Your task to perform on an android device: Go to location settings Image 0: 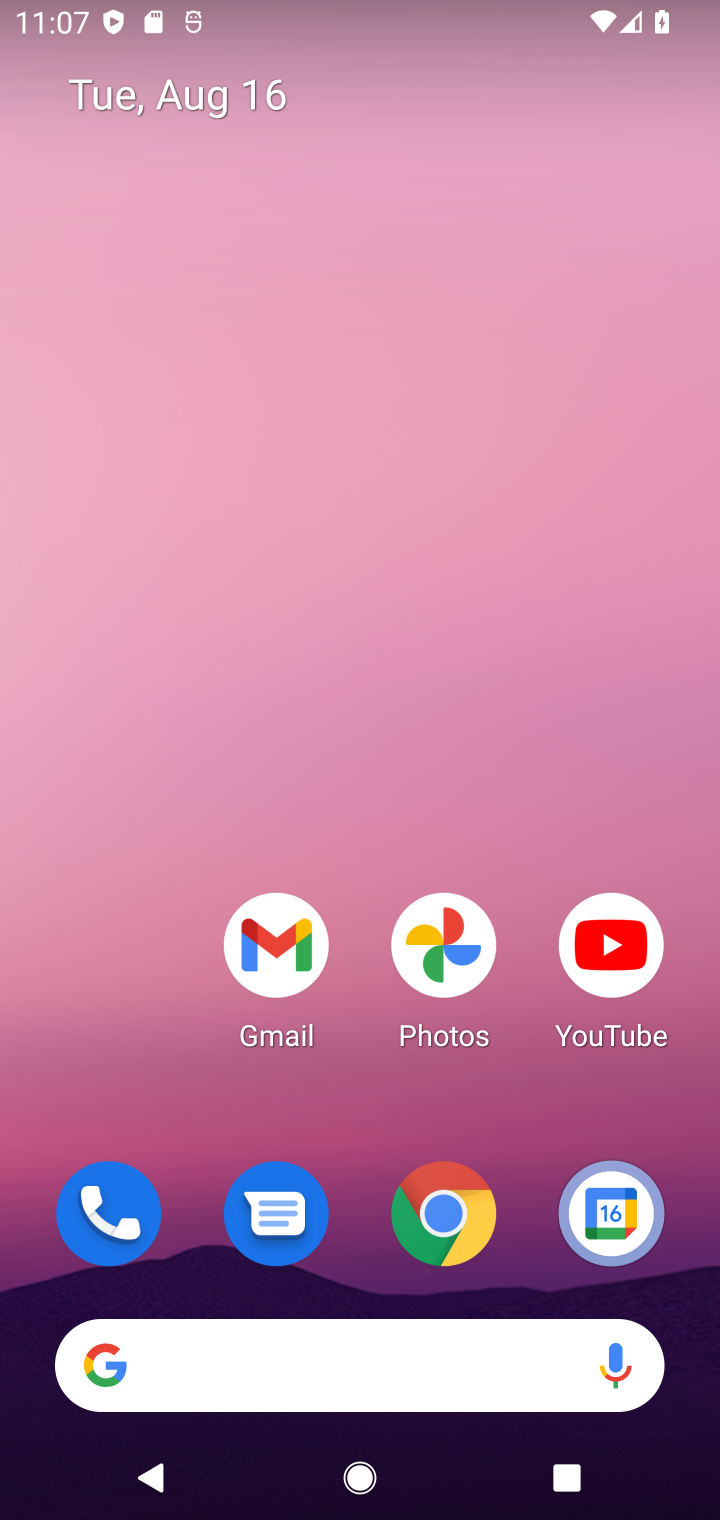
Step 0: click (273, 175)
Your task to perform on an android device: Go to location settings Image 1: 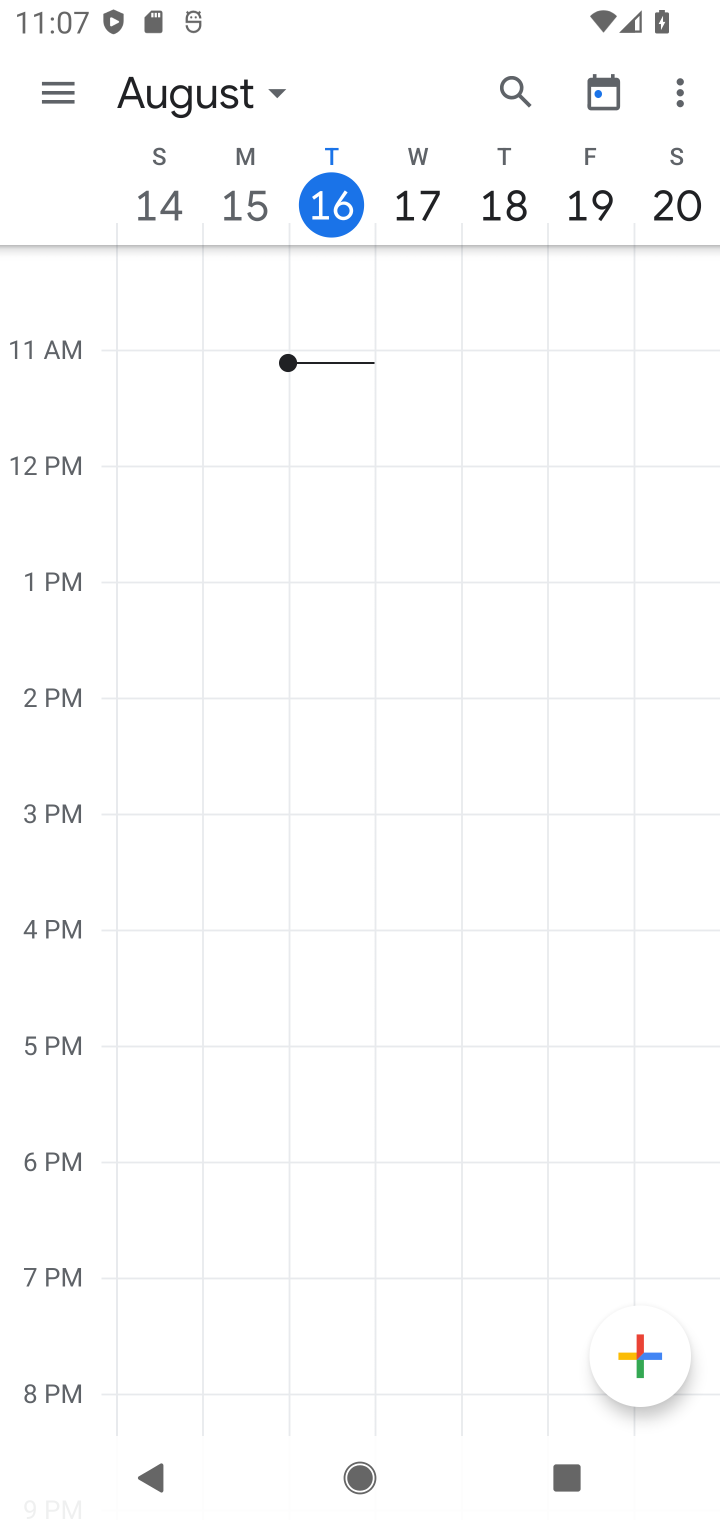
Step 1: press home button
Your task to perform on an android device: Go to location settings Image 2: 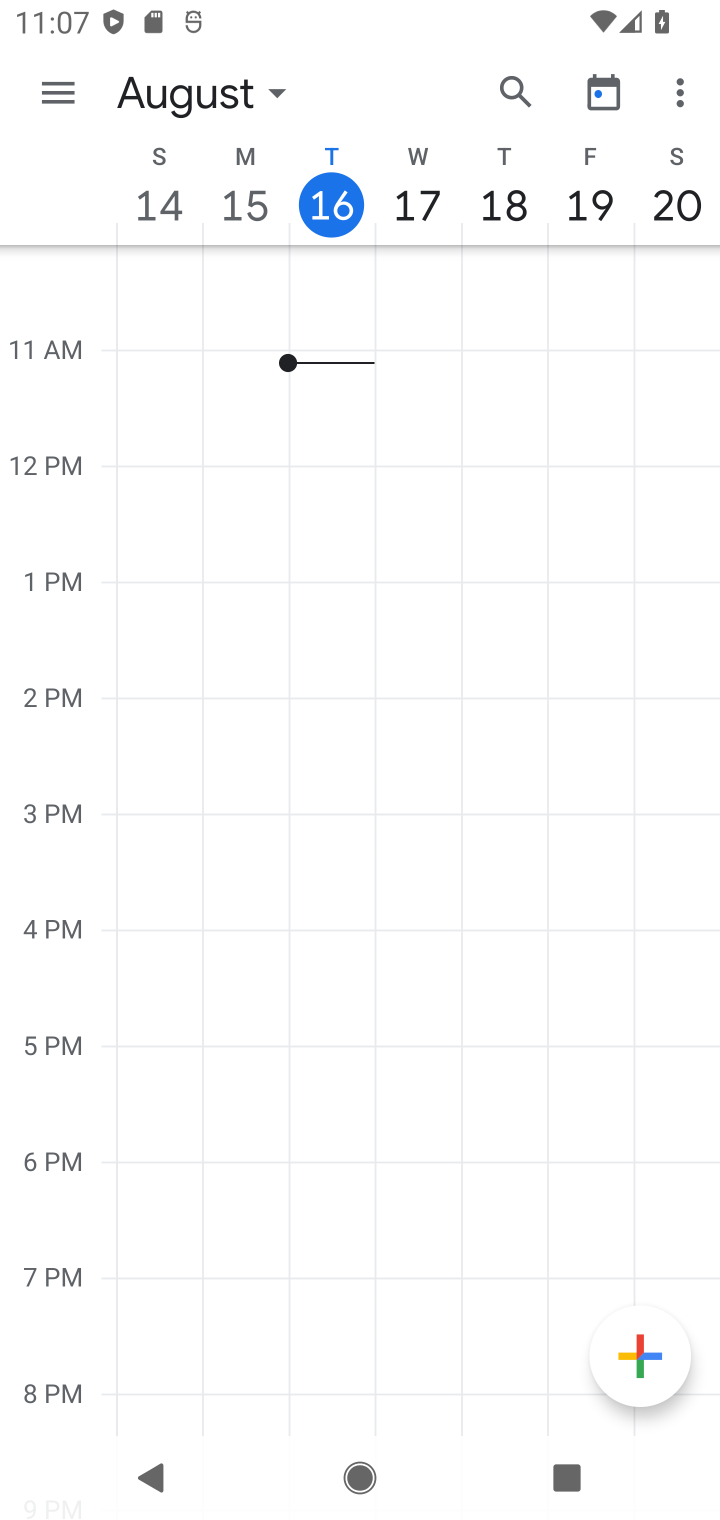
Step 2: press home button
Your task to perform on an android device: Go to location settings Image 3: 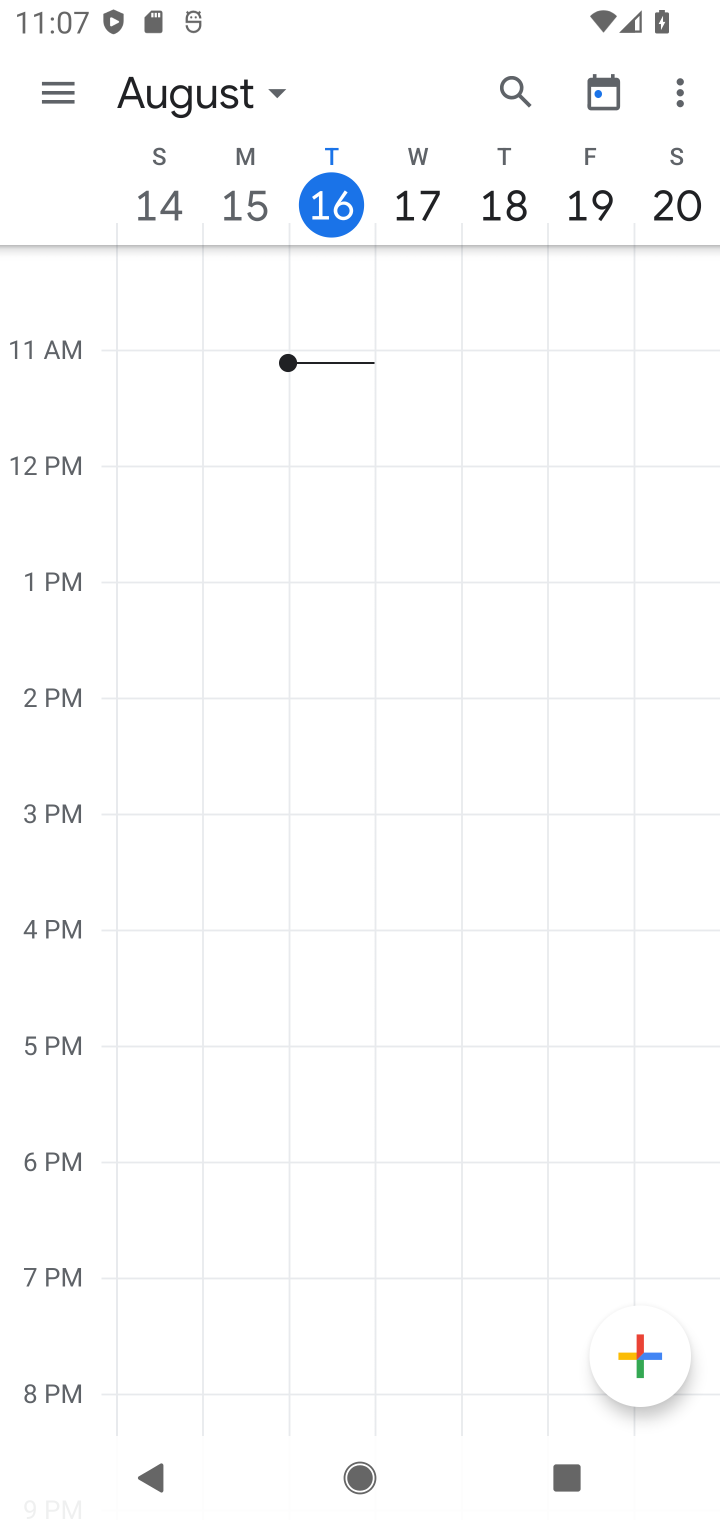
Step 3: press home button
Your task to perform on an android device: Go to location settings Image 4: 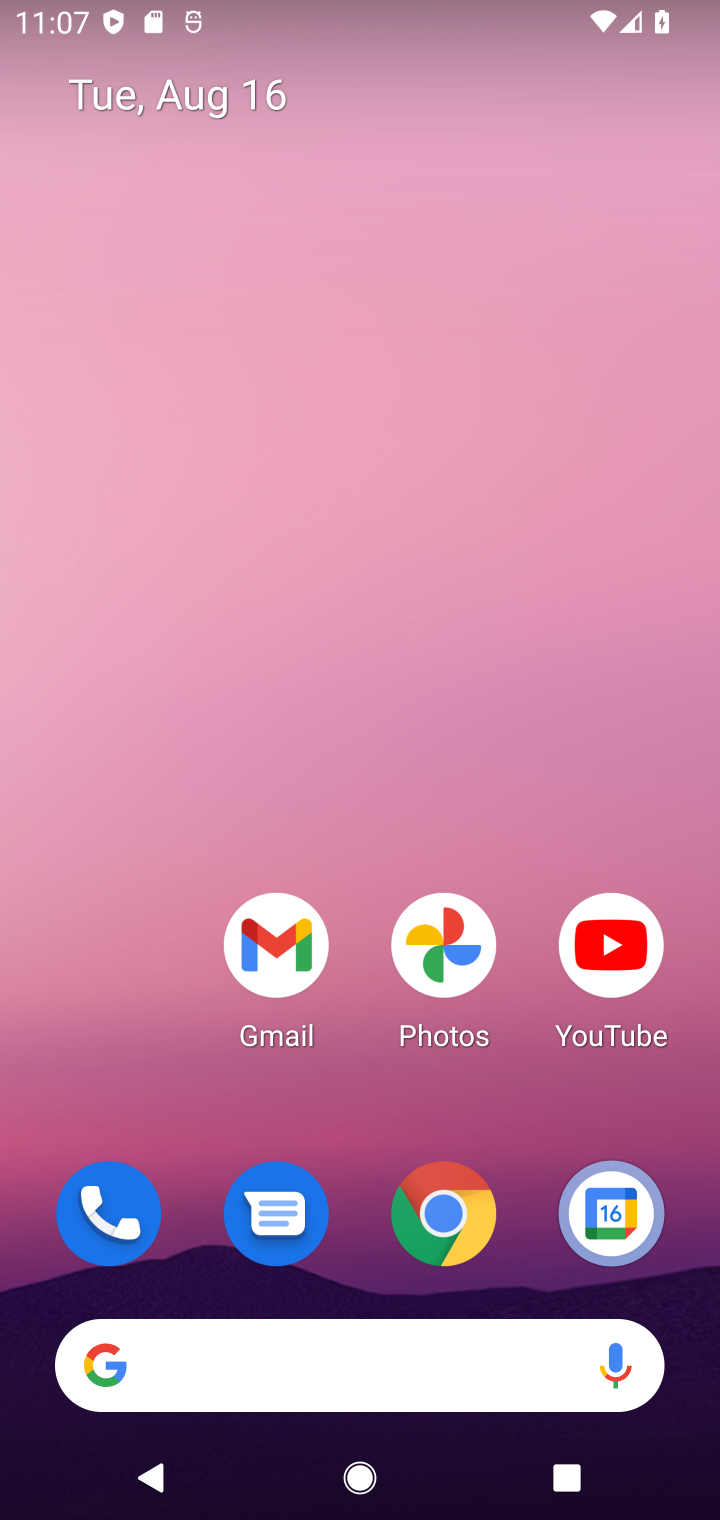
Step 4: drag from (387, 845) to (453, 8)
Your task to perform on an android device: Go to location settings Image 5: 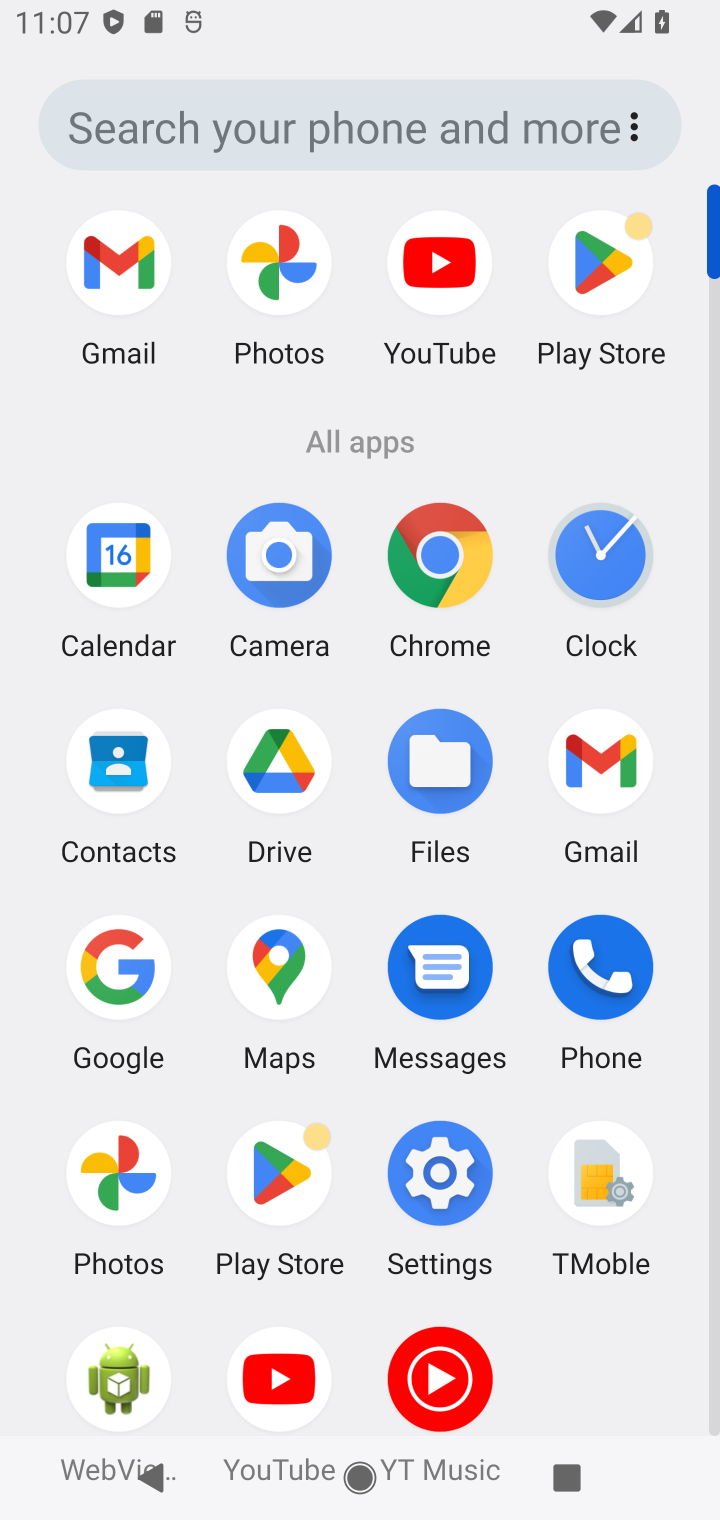
Step 5: click (443, 1171)
Your task to perform on an android device: Go to location settings Image 6: 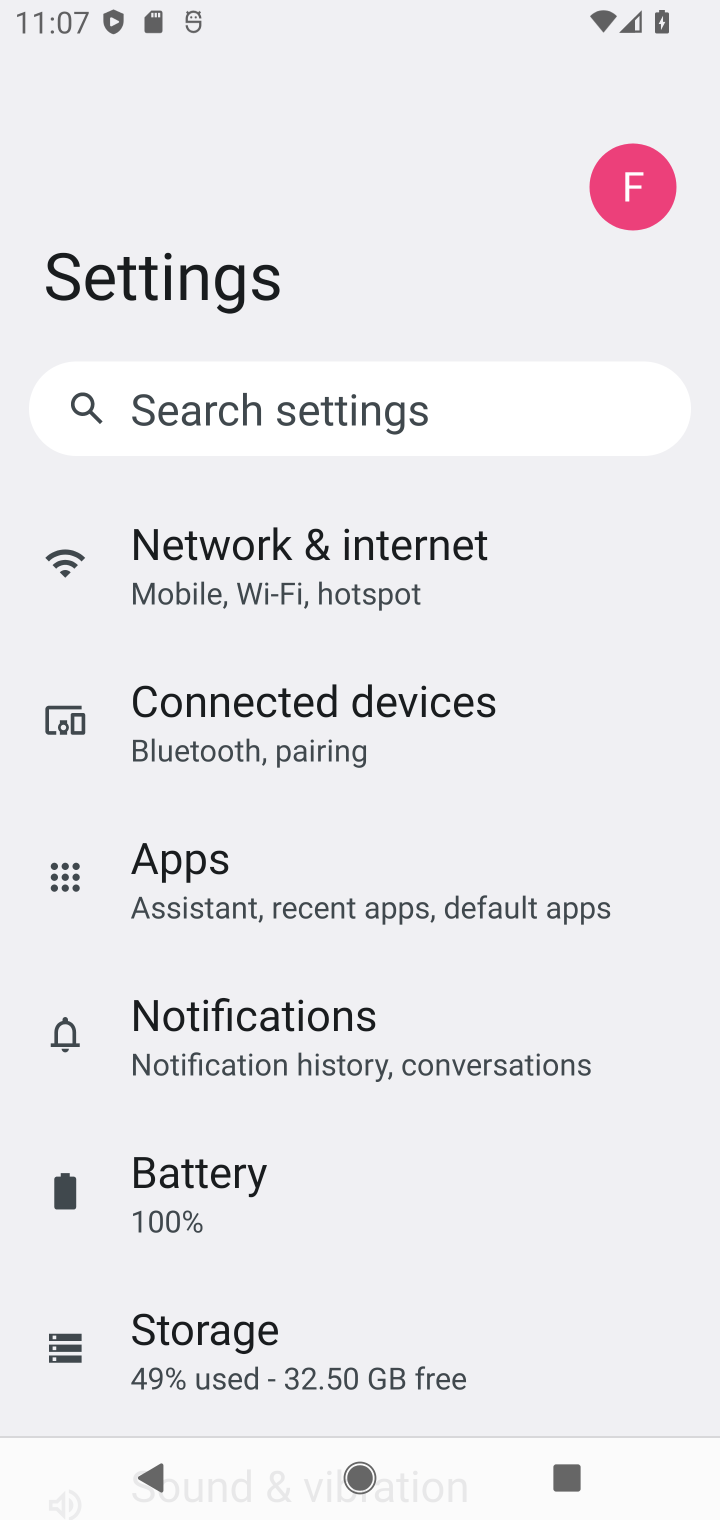
Step 6: drag from (348, 1182) to (408, 327)
Your task to perform on an android device: Go to location settings Image 7: 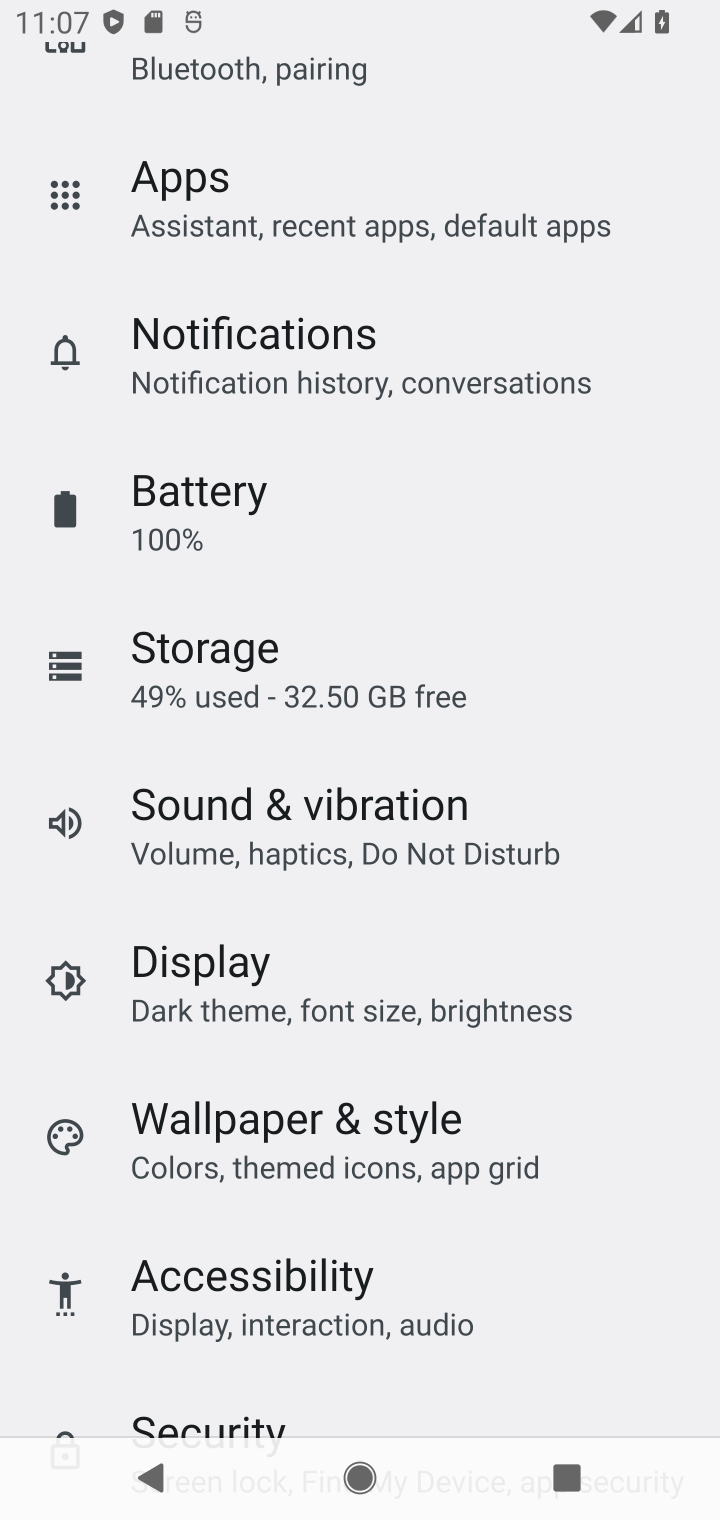
Step 7: click (453, 652)
Your task to perform on an android device: Go to location settings Image 8: 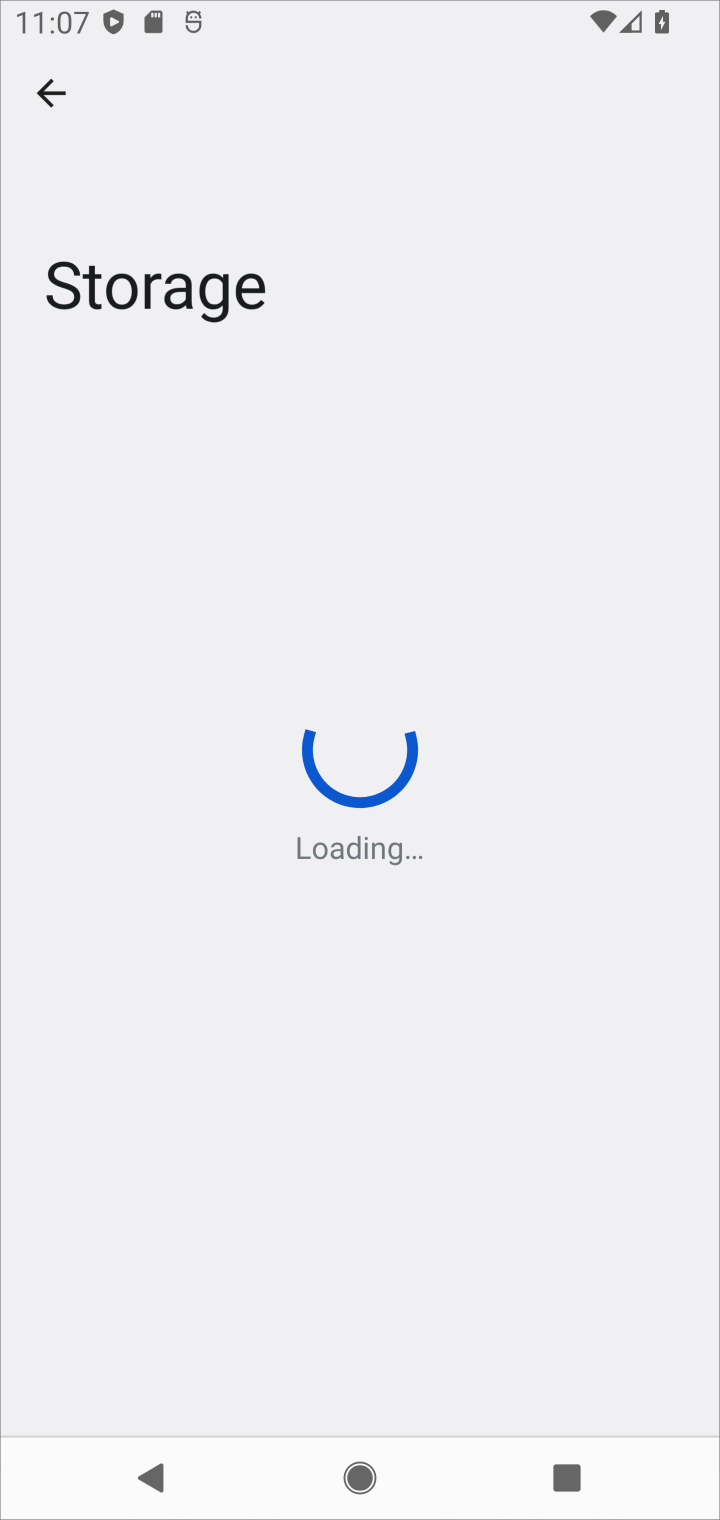
Step 8: drag from (307, 1314) to (401, 369)
Your task to perform on an android device: Go to location settings Image 9: 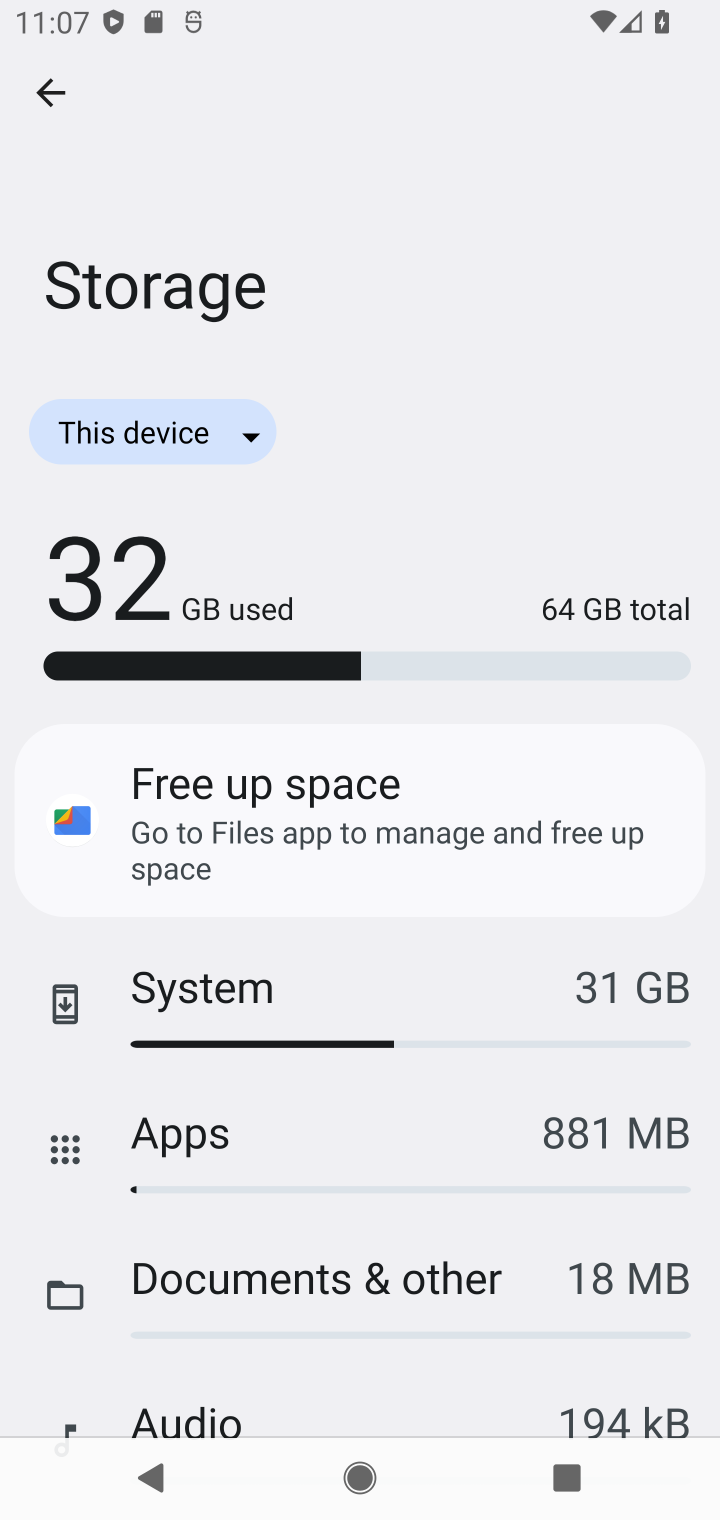
Step 9: press back button
Your task to perform on an android device: Go to location settings Image 10: 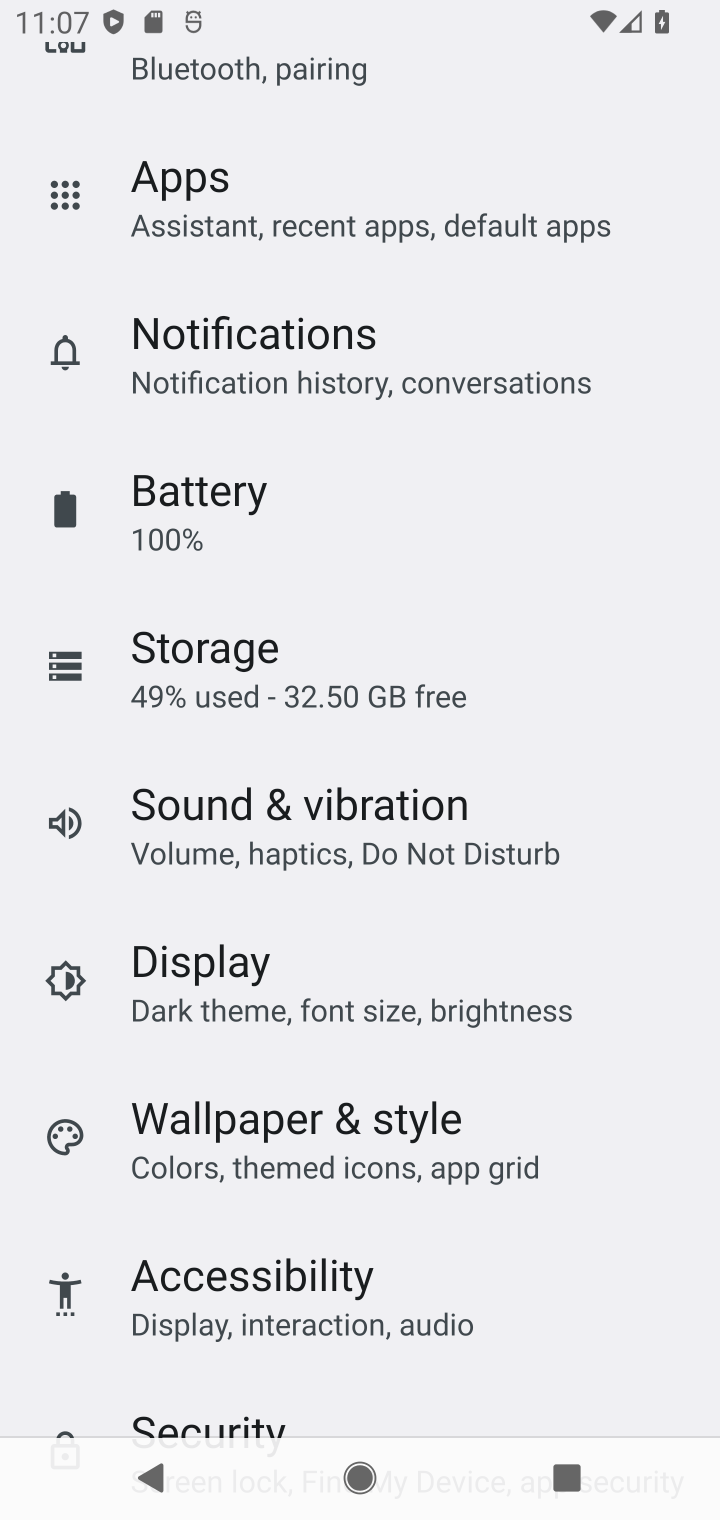
Step 10: drag from (405, 1076) to (494, 344)
Your task to perform on an android device: Go to location settings Image 11: 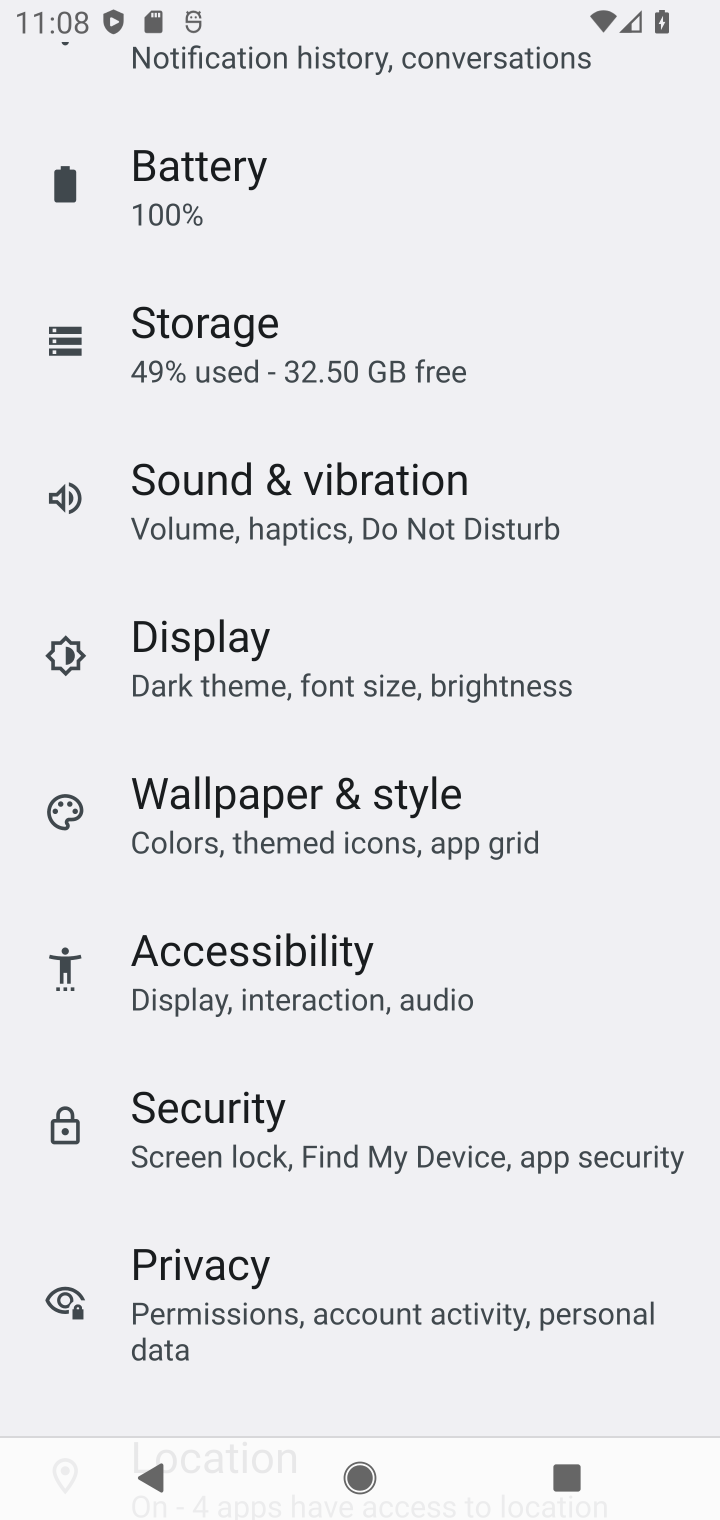
Step 11: drag from (274, 1402) to (452, 378)
Your task to perform on an android device: Go to location settings Image 12: 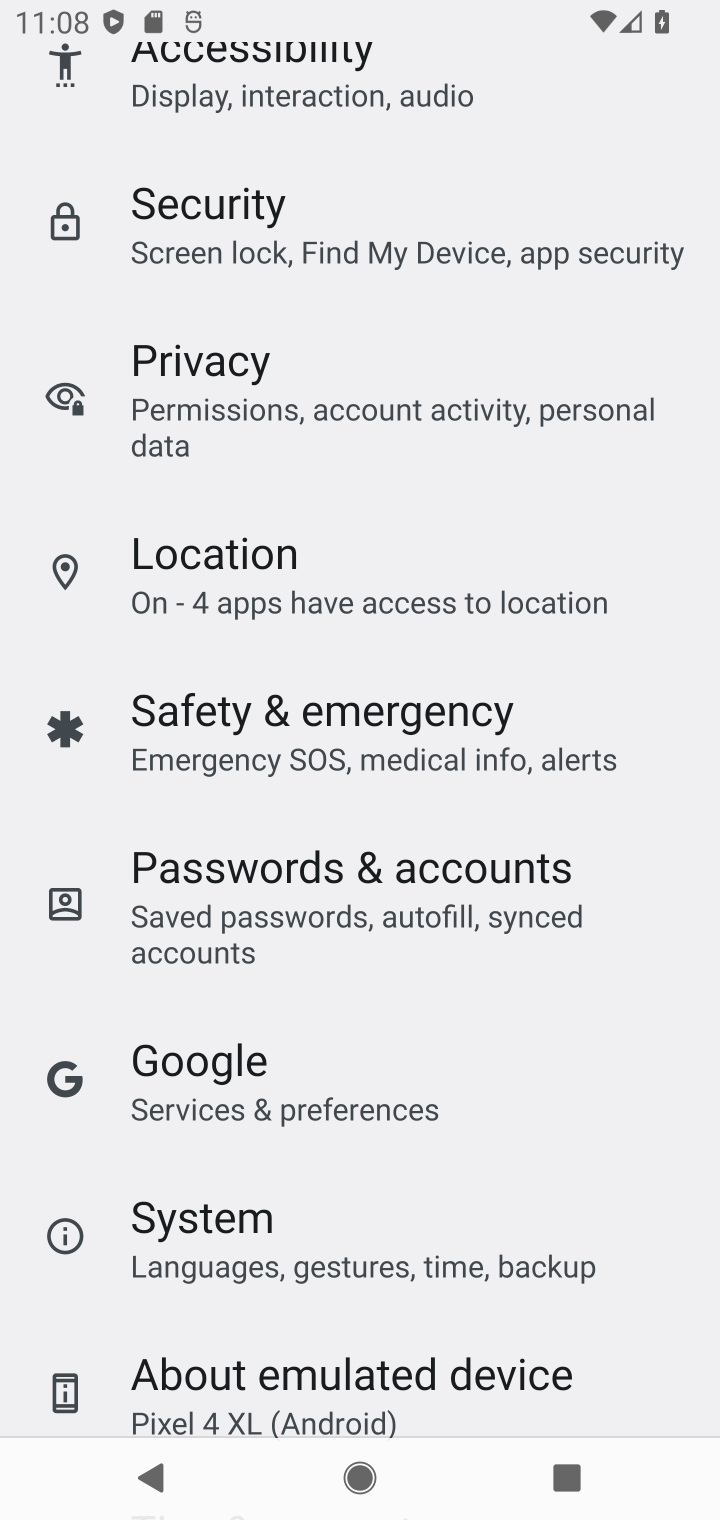
Step 12: click (471, 1138)
Your task to perform on an android device: Go to location settings Image 13: 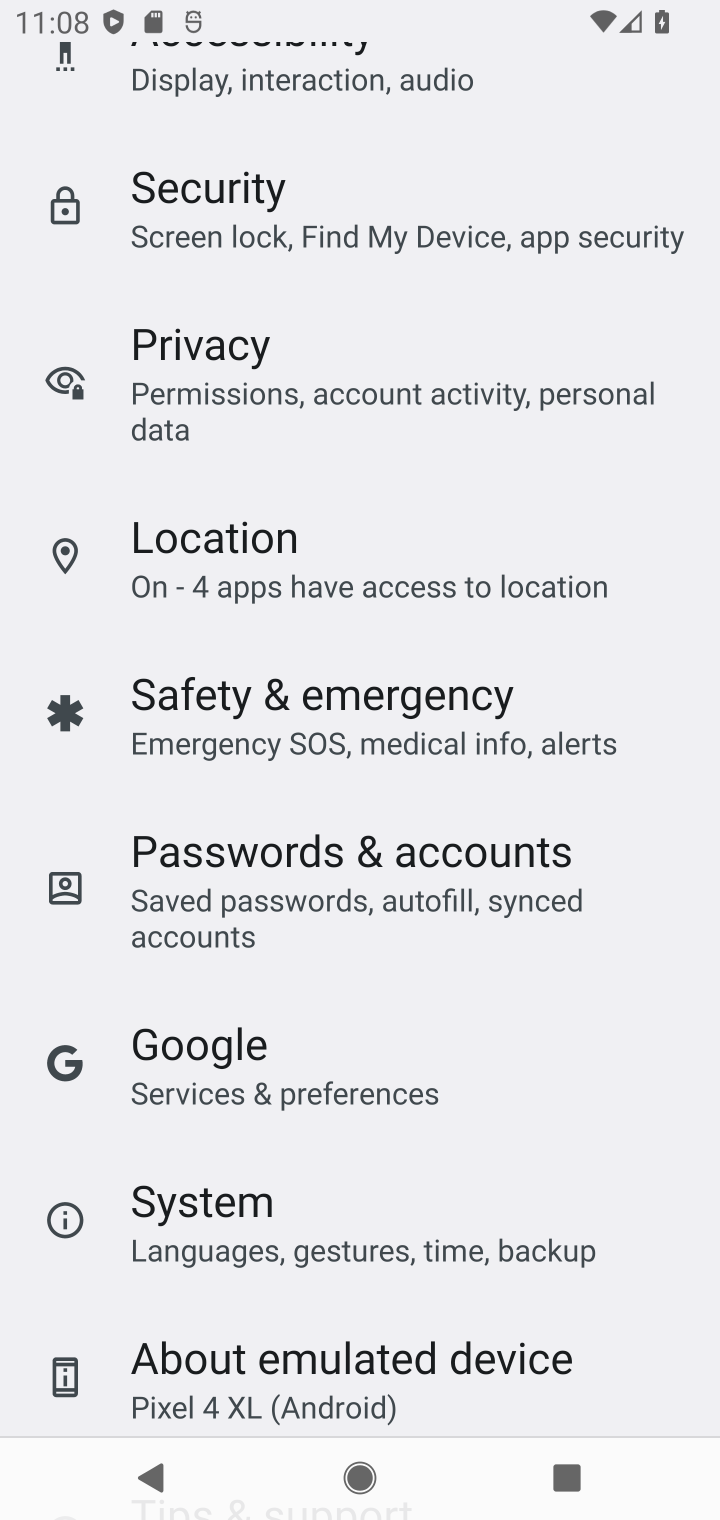
Step 13: click (331, 552)
Your task to perform on an android device: Go to location settings Image 14: 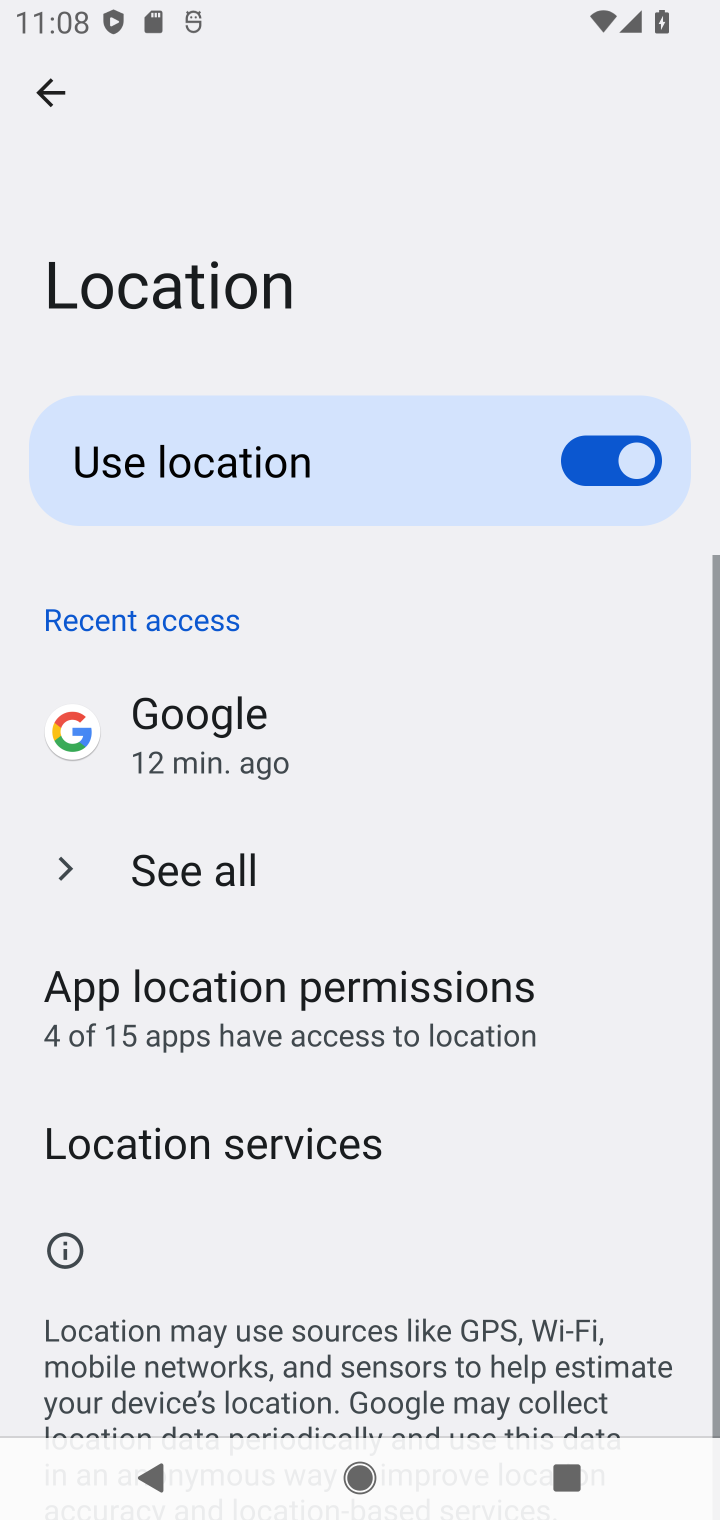
Step 14: task complete